Your task to perform on an android device: open wifi settings Image 0: 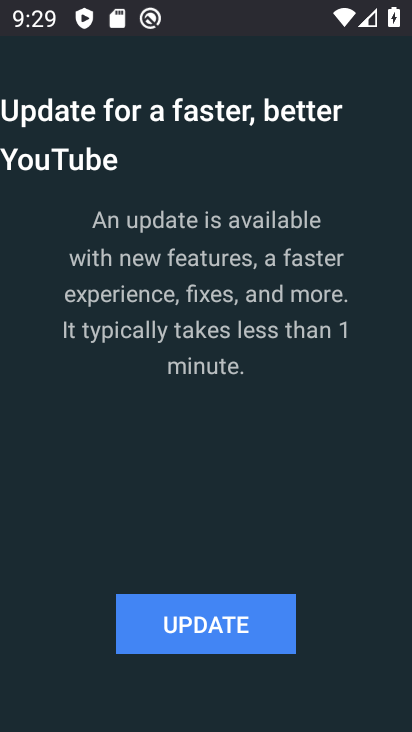
Step 0: press home button
Your task to perform on an android device: open wifi settings Image 1: 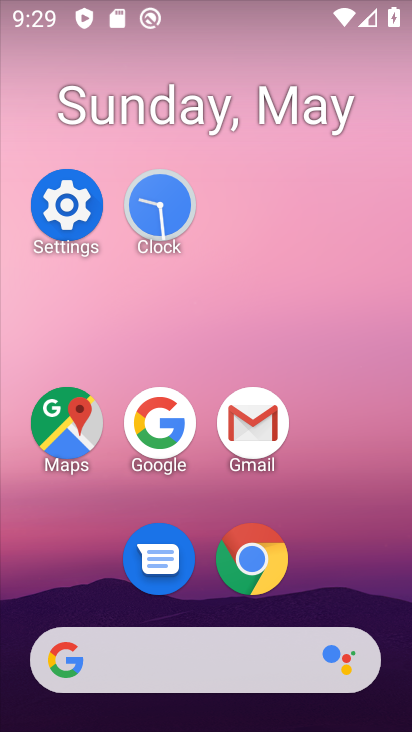
Step 1: click (57, 182)
Your task to perform on an android device: open wifi settings Image 2: 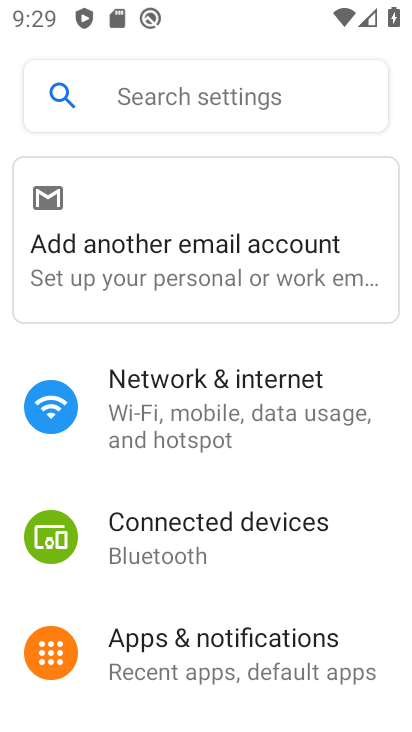
Step 2: click (258, 416)
Your task to perform on an android device: open wifi settings Image 3: 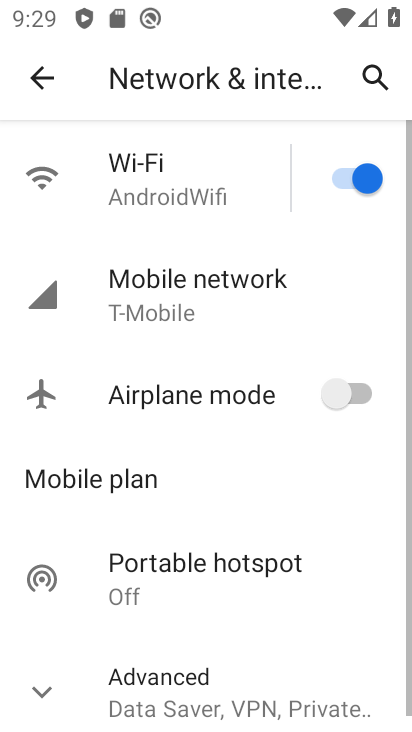
Step 3: click (159, 185)
Your task to perform on an android device: open wifi settings Image 4: 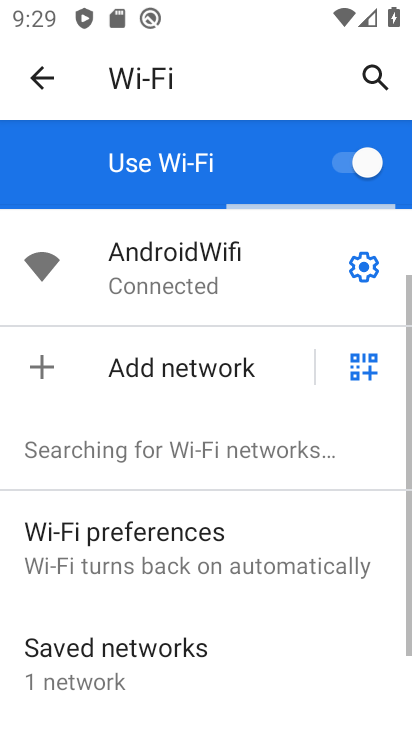
Step 4: click (351, 262)
Your task to perform on an android device: open wifi settings Image 5: 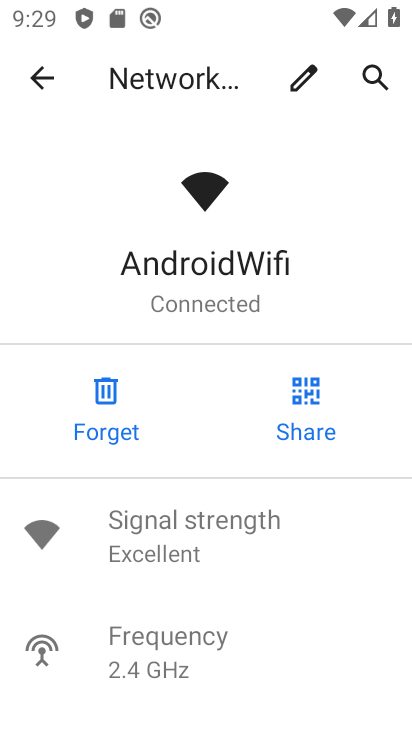
Step 5: task complete